Your task to perform on an android device: Turn on the flashlight Image 0: 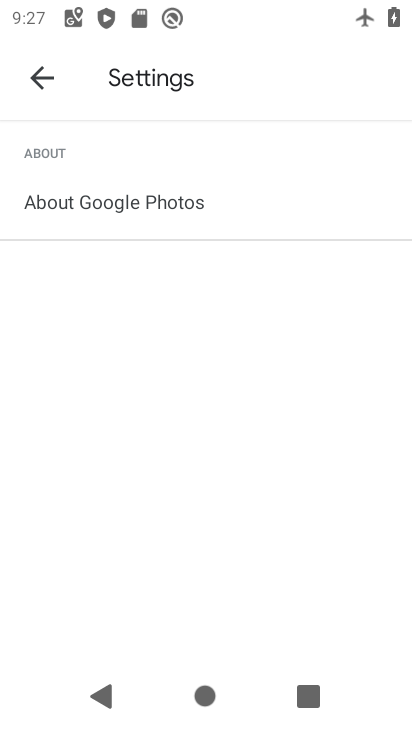
Step 0: press back button
Your task to perform on an android device: Turn on the flashlight Image 1: 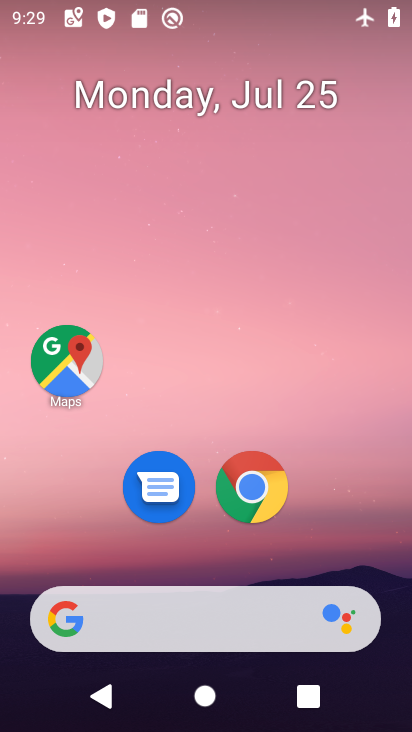
Step 1: drag from (202, 601) to (230, 47)
Your task to perform on an android device: Turn on the flashlight Image 2: 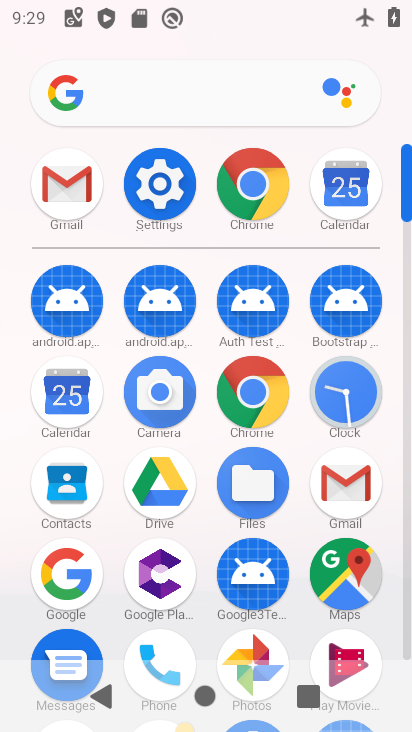
Step 2: click (174, 181)
Your task to perform on an android device: Turn on the flashlight Image 3: 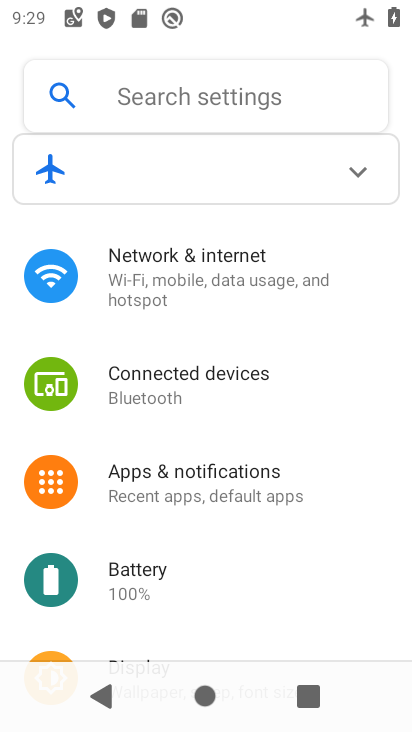
Step 3: click (173, 95)
Your task to perform on an android device: Turn on the flashlight Image 4: 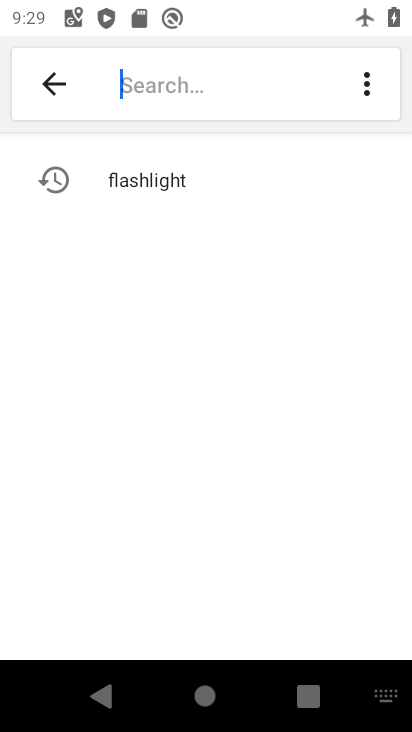
Step 4: type "flashlight"
Your task to perform on an android device: Turn on the flashlight Image 5: 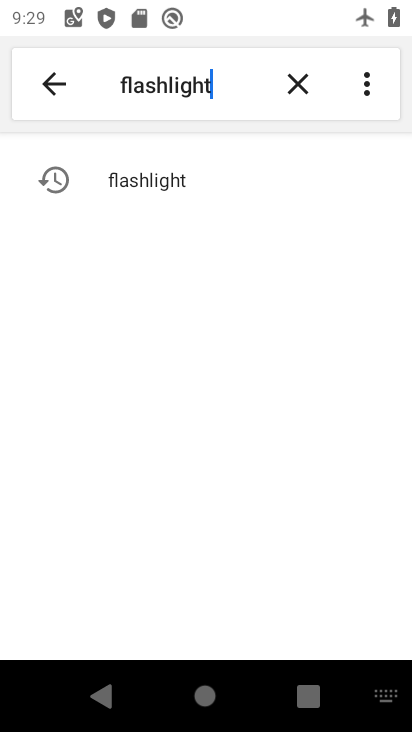
Step 5: click (107, 170)
Your task to perform on an android device: Turn on the flashlight Image 6: 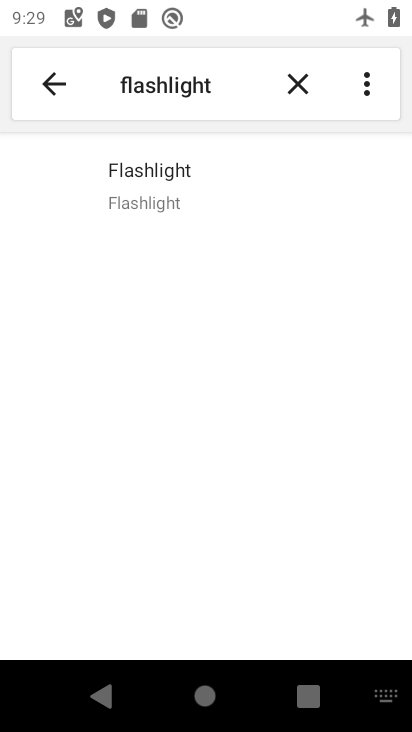
Step 6: task complete